Your task to perform on an android device: Go to Reddit.com Image 0: 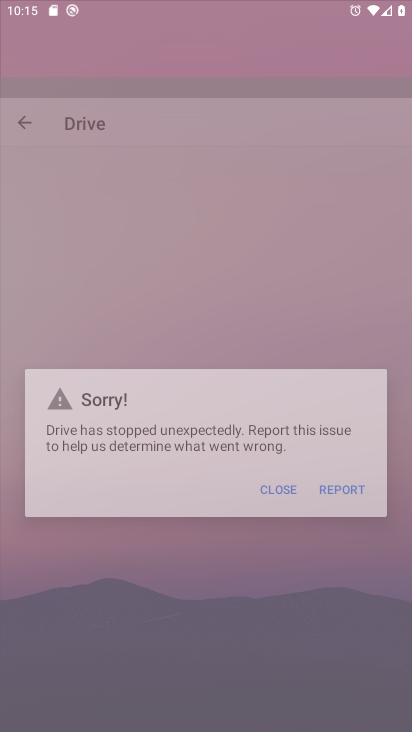
Step 0: drag from (227, 357) to (266, 626)
Your task to perform on an android device: Go to Reddit.com Image 1: 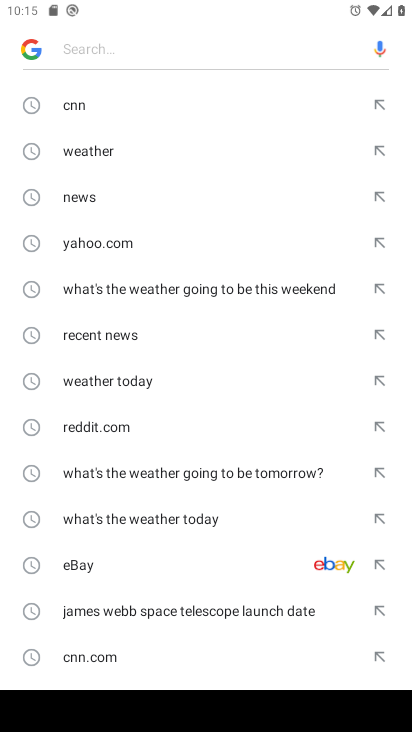
Step 1: click (100, 426)
Your task to perform on an android device: Go to Reddit.com Image 2: 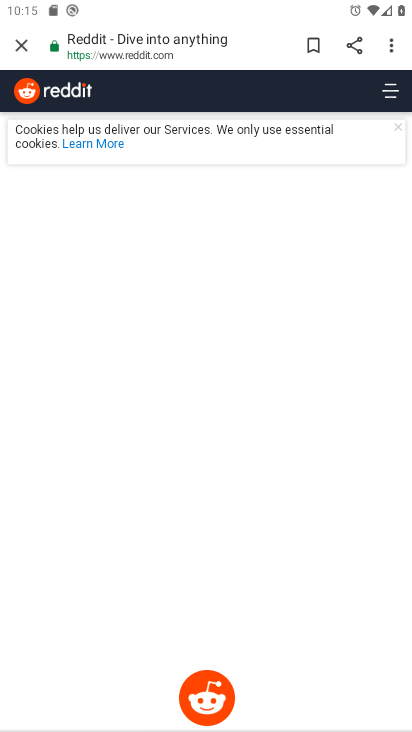
Step 2: task complete